Your task to perform on an android device: Search for Italian restaurants on Maps Image 0: 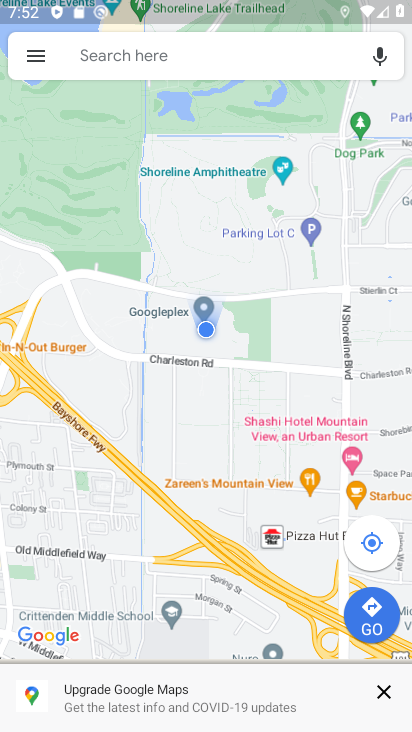
Step 0: click (171, 57)
Your task to perform on an android device: Search for Italian restaurants on Maps Image 1: 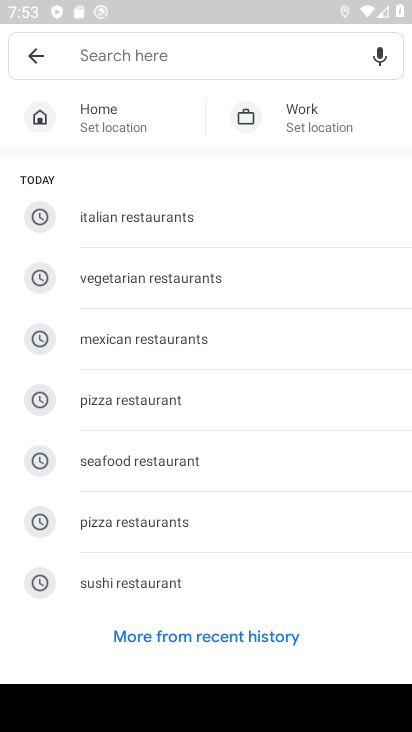
Step 1: type "Italilan restaurants"
Your task to perform on an android device: Search for Italian restaurants on Maps Image 2: 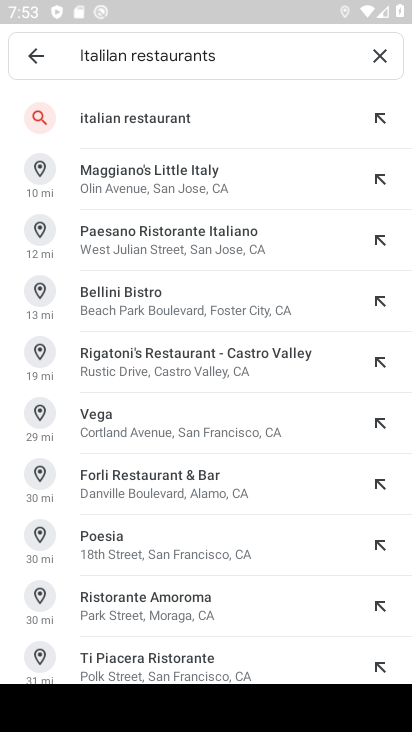
Step 2: click (164, 116)
Your task to perform on an android device: Search for Italian restaurants on Maps Image 3: 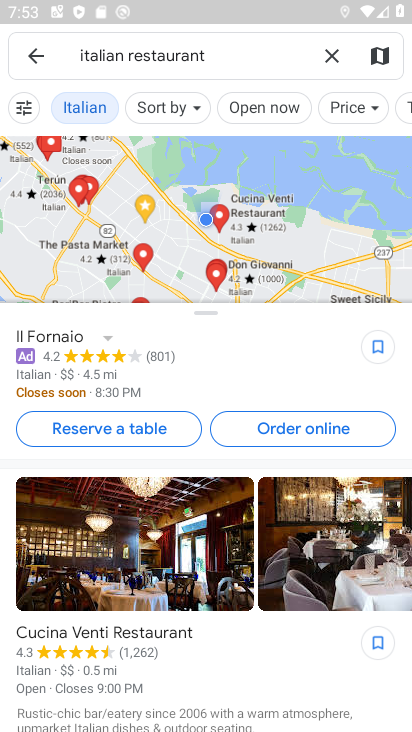
Step 3: task complete